Your task to perform on an android device: turn off wifi Image 0: 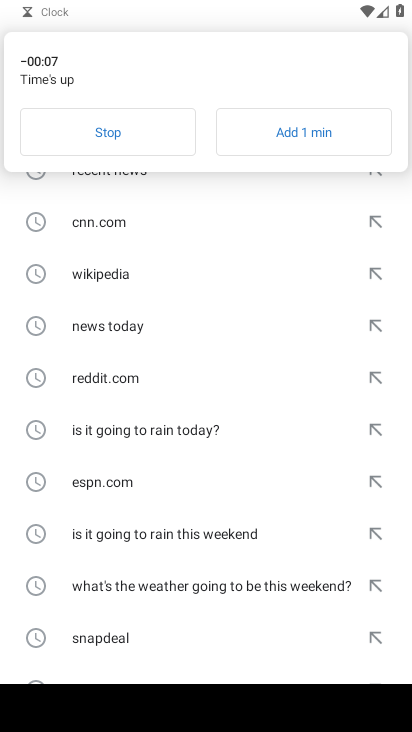
Step 0: click (151, 125)
Your task to perform on an android device: turn off wifi Image 1: 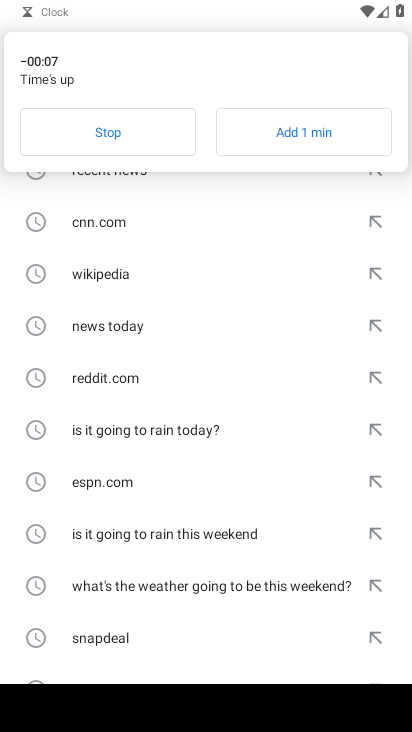
Step 1: press home button
Your task to perform on an android device: turn off wifi Image 2: 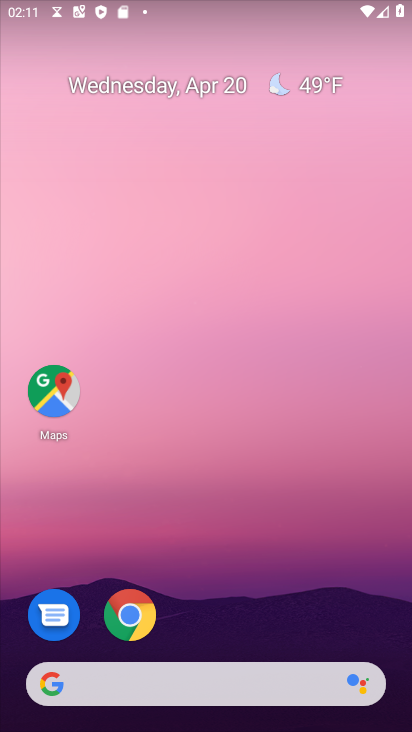
Step 2: drag from (380, 14) to (340, 602)
Your task to perform on an android device: turn off wifi Image 3: 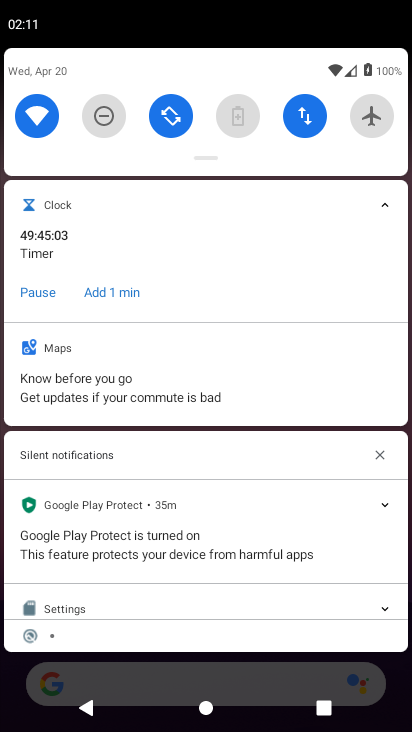
Step 3: click (224, 693)
Your task to perform on an android device: turn off wifi Image 4: 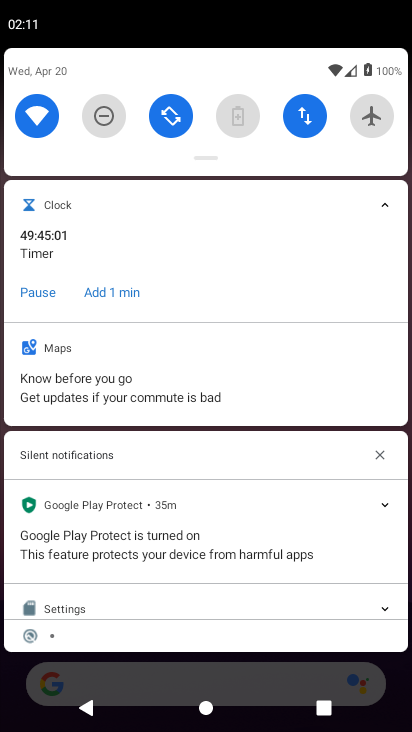
Step 4: press back button
Your task to perform on an android device: turn off wifi Image 5: 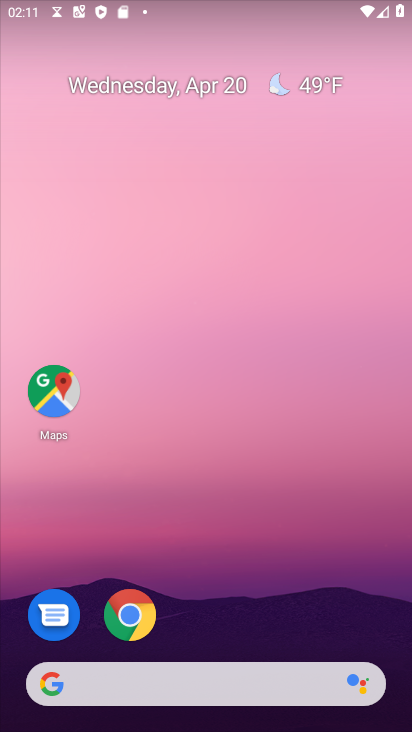
Step 5: drag from (286, 589) to (294, 156)
Your task to perform on an android device: turn off wifi Image 6: 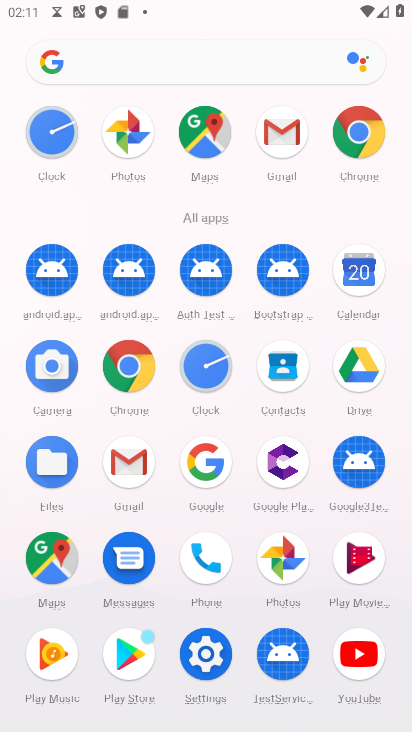
Step 6: drag from (271, 618) to (251, 169)
Your task to perform on an android device: turn off wifi Image 7: 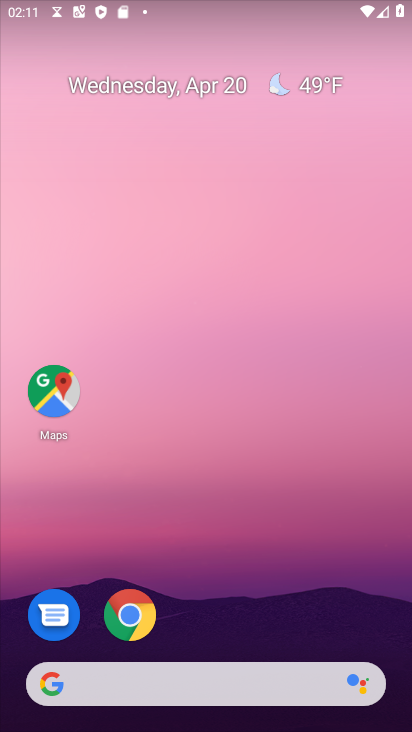
Step 7: click (207, 668)
Your task to perform on an android device: turn off wifi Image 8: 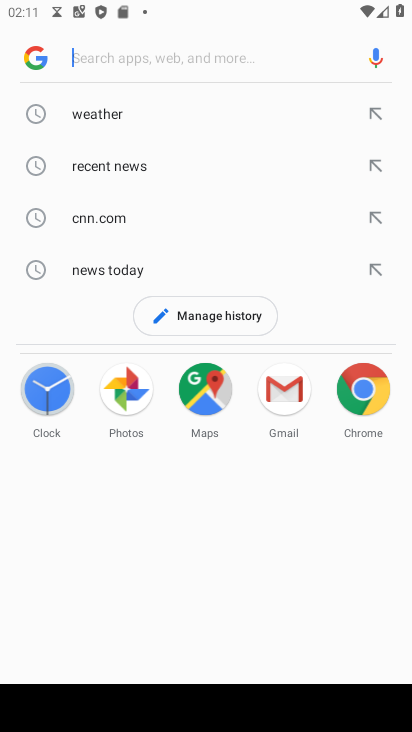
Step 8: press home button
Your task to perform on an android device: turn off wifi Image 9: 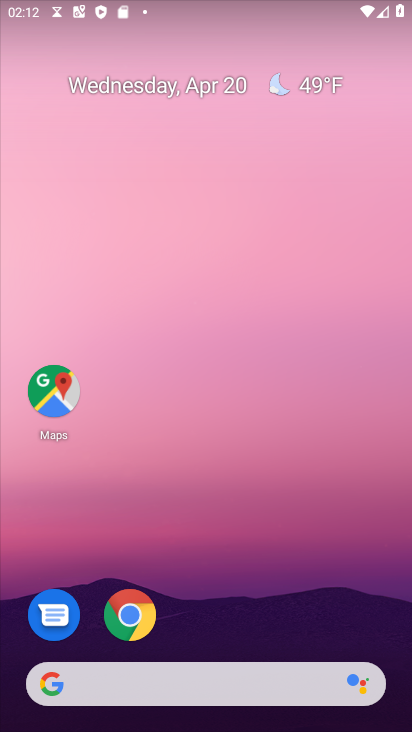
Step 9: drag from (284, 620) to (271, 174)
Your task to perform on an android device: turn off wifi Image 10: 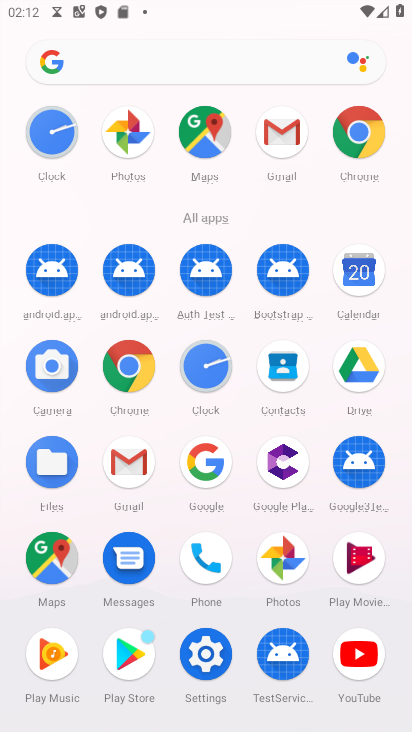
Step 10: click (215, 658)
Your task to perform on an android device: turn off wifi Image 11: 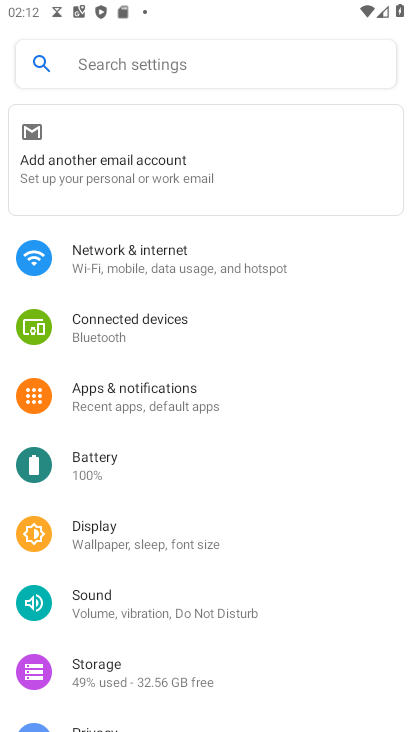
Step 11: click (189, 260)
Your task to perform on an android device: turn off wifi Image 12: 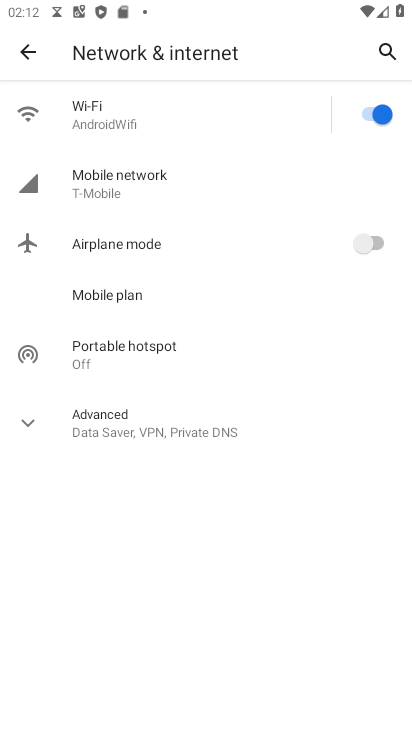
Step 12: click (390, 111)
Your task to perform on an android device: turn off wifi Image 13: 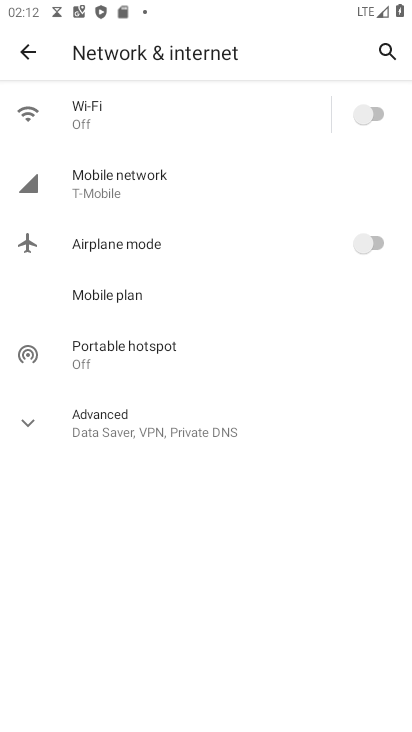
Step 13: task complete